Your task to perform on an android device: change timer sound Image 0: 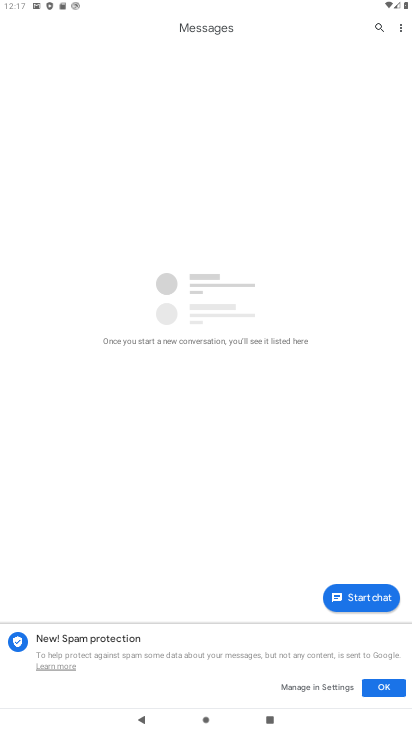
Step 0: press home button
Your task to perform on an android device: change timer sound Image 1: 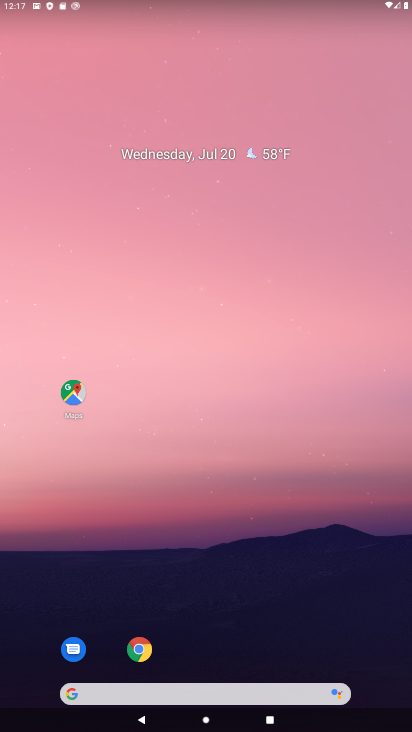
Step 1: drag from (202, 648) to (176, 83)
Your task to perform on an android device: change timer sound Image 2: 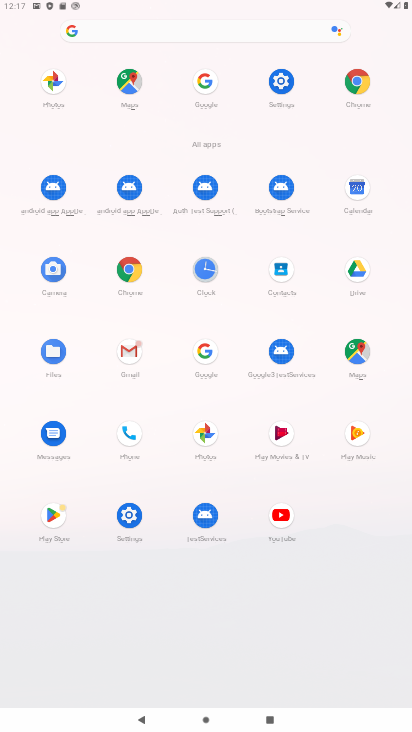
Step 2: click (204, 275)
Your task to perform on an android device: change timer sound Image 3: 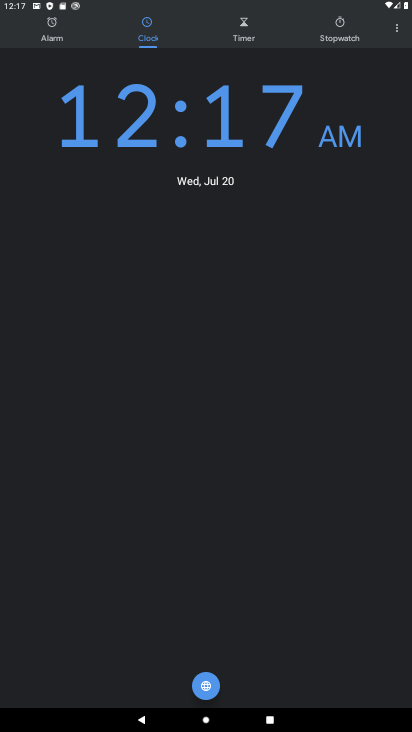
Step 3: click (395, 29)
Your task to perform on an android device: change timer sound Image 4: 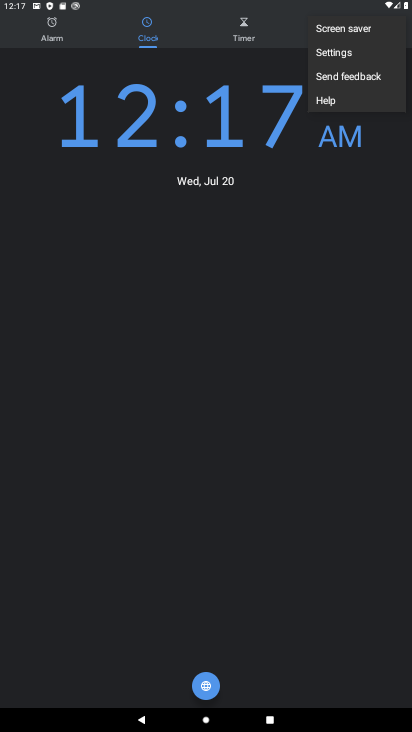
Step 4: click (340, 58)
Your task to perform on an android device: change timer sound Image 5: 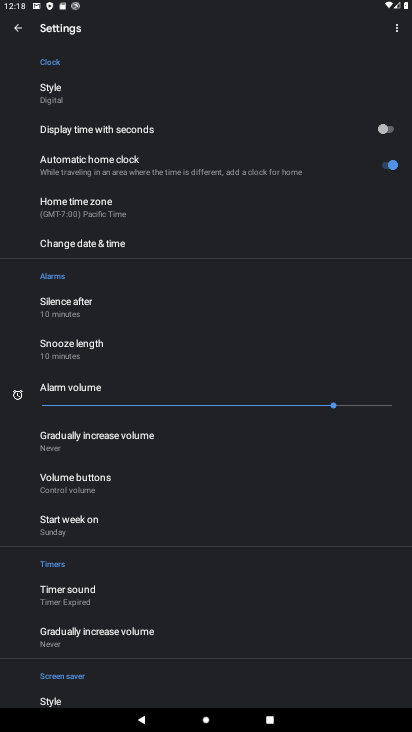
Step 5: click (71, 600)
Your task to perform on an android device: change timer sound Image 6: 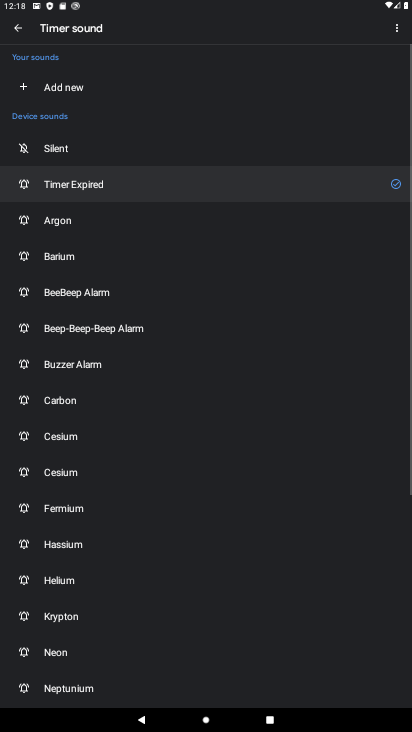
Step 6: click (70, 220)
Your task to perform on an android device: change timer sound Image 7: 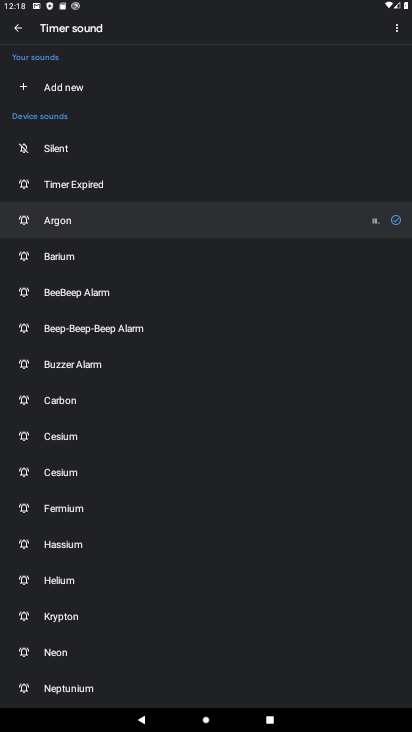
Step 7: task complete